Your task to perform on an android device: Search for the best rated TV on Target Image 0: 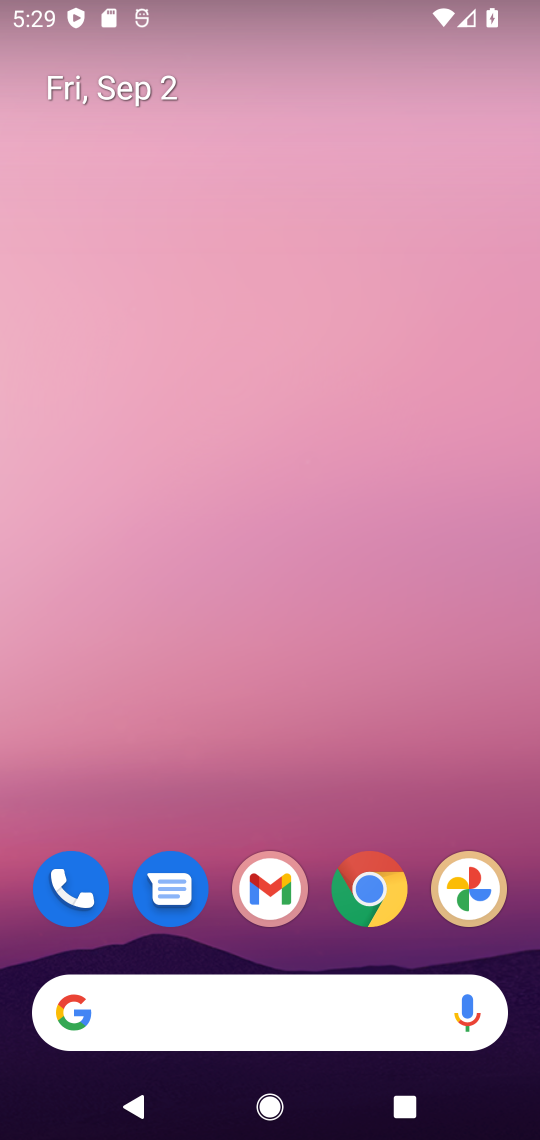
Step 0: click (339, 998)
Your task to perform on an android device: Search for the best rated TV on Target Image 1: 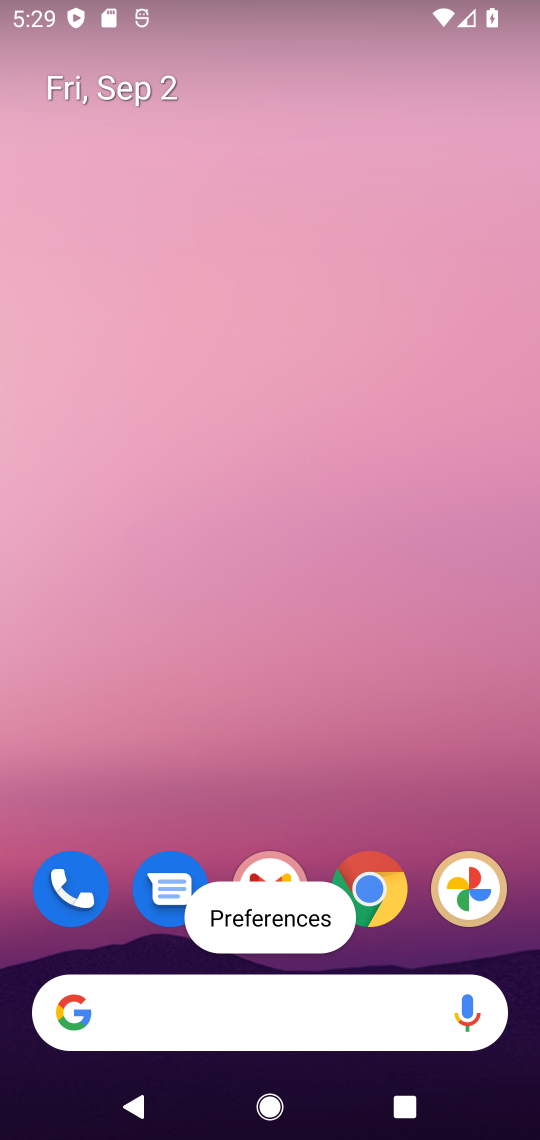
Step 1: click (242, 1003)
Your task to perform on an android device: Search for the best rated TV on Target Image 2: 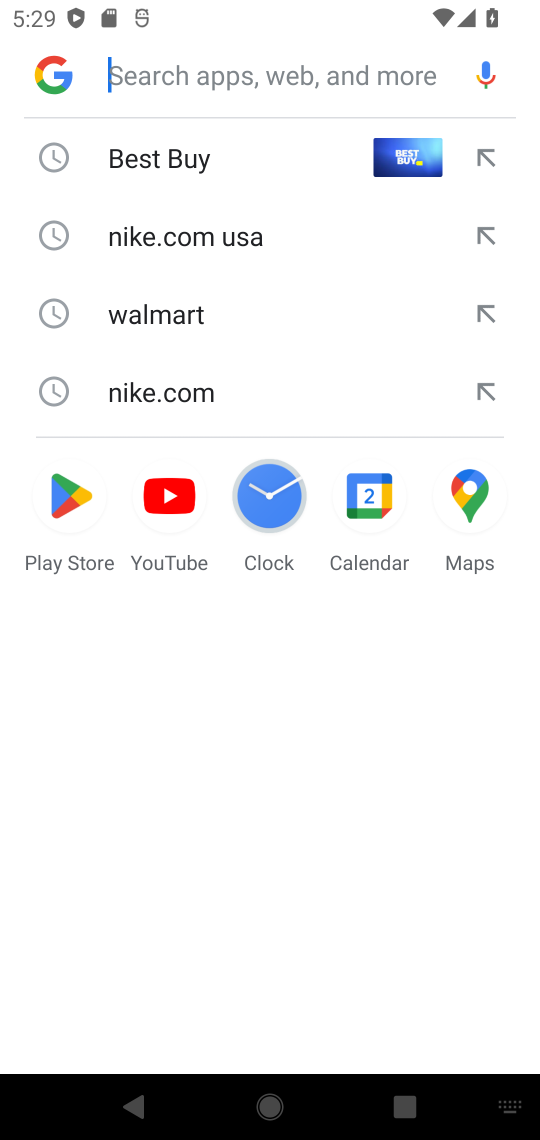
Step 2: type "Target"
Your task to perform on an android device: Search for the best rated TV on Target Image 3: 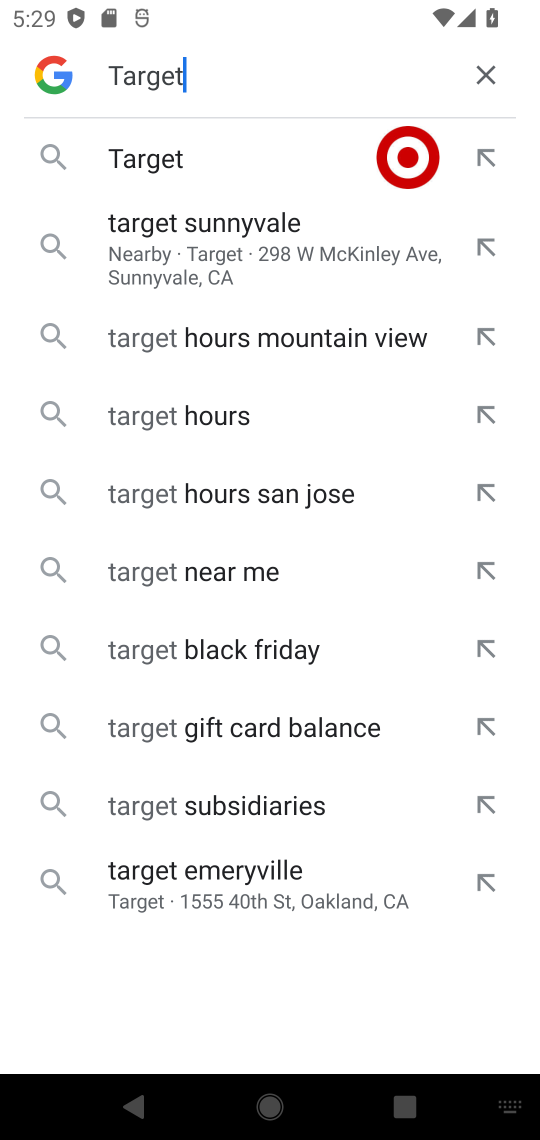
Step 3: click (189, 149)
Your task to perform on an android device: Search for the best rated TV on Target Image 4: 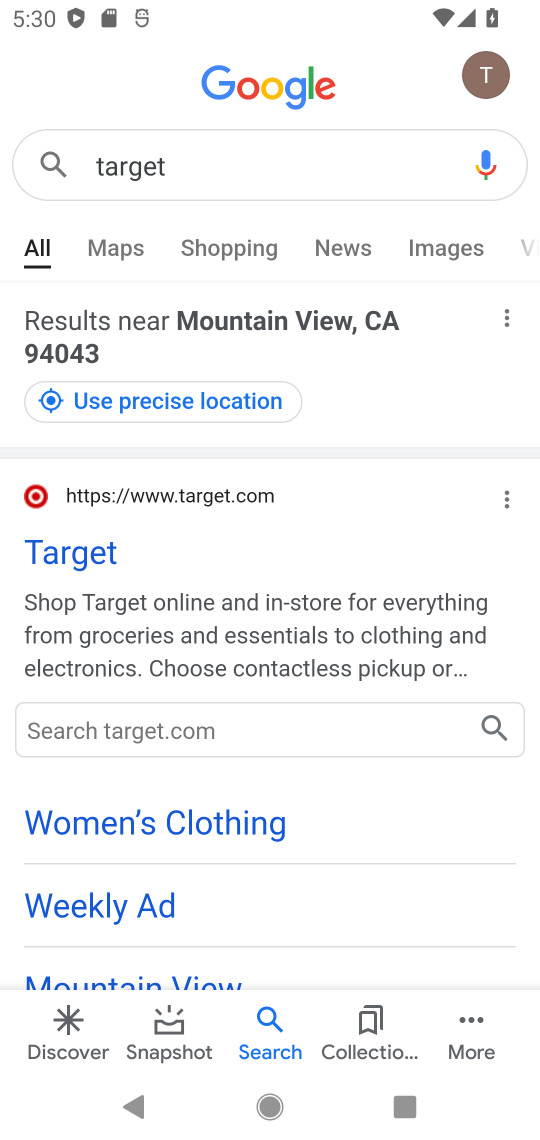
Step 4: click (91, 556)
Your task to perform on an android device: Search for the best rated TV on Target Image 5: 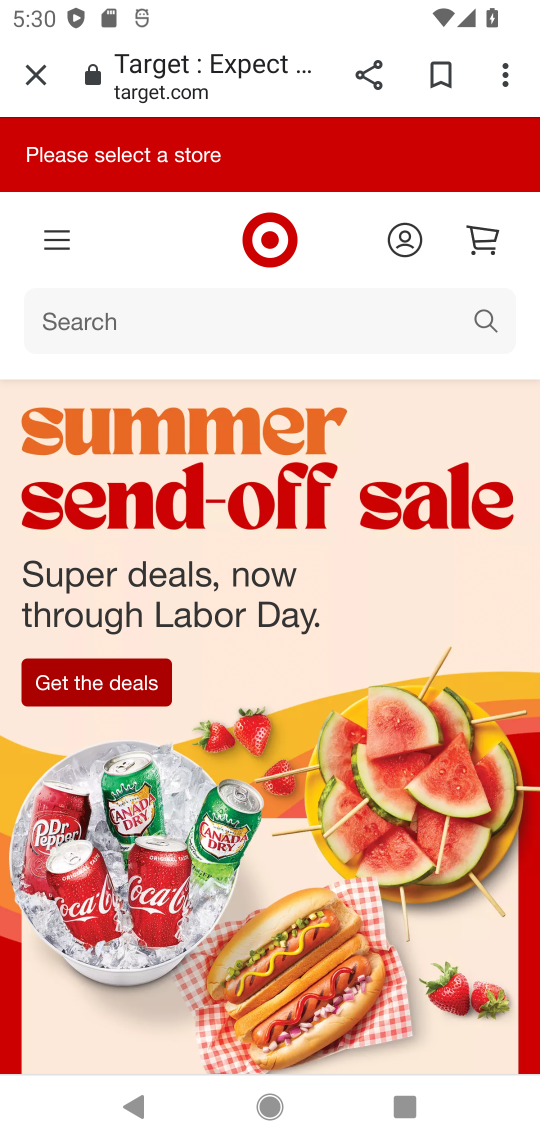
Step 5: click (329, 335)
Your task to perform on an android device: Search for the best rated TV on Target Image 6: 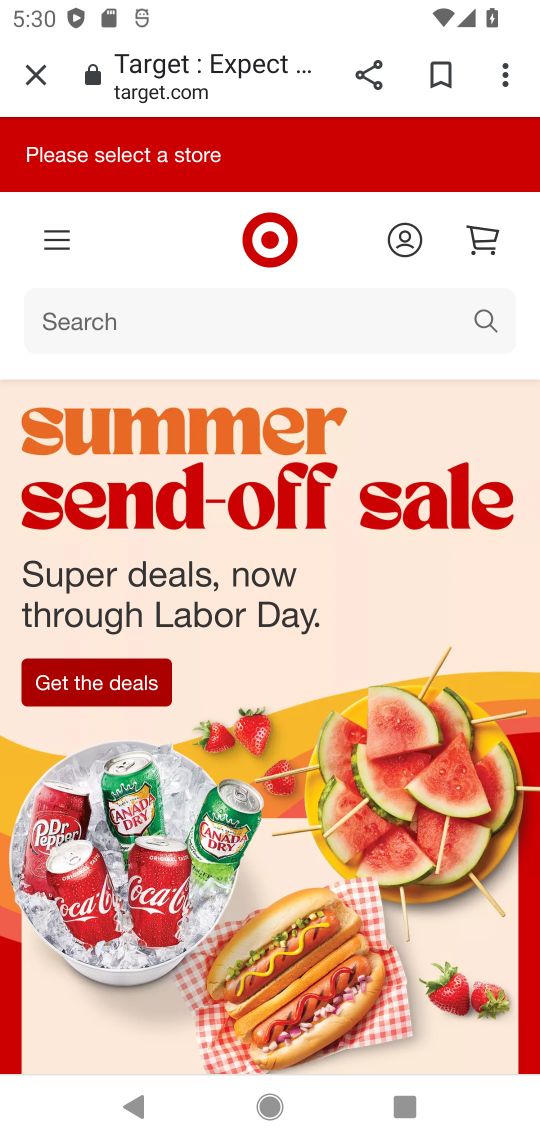
Step 6: click (92, 319)
Your task to perform on an android device: Search for the best rated TV on Target Image 7: 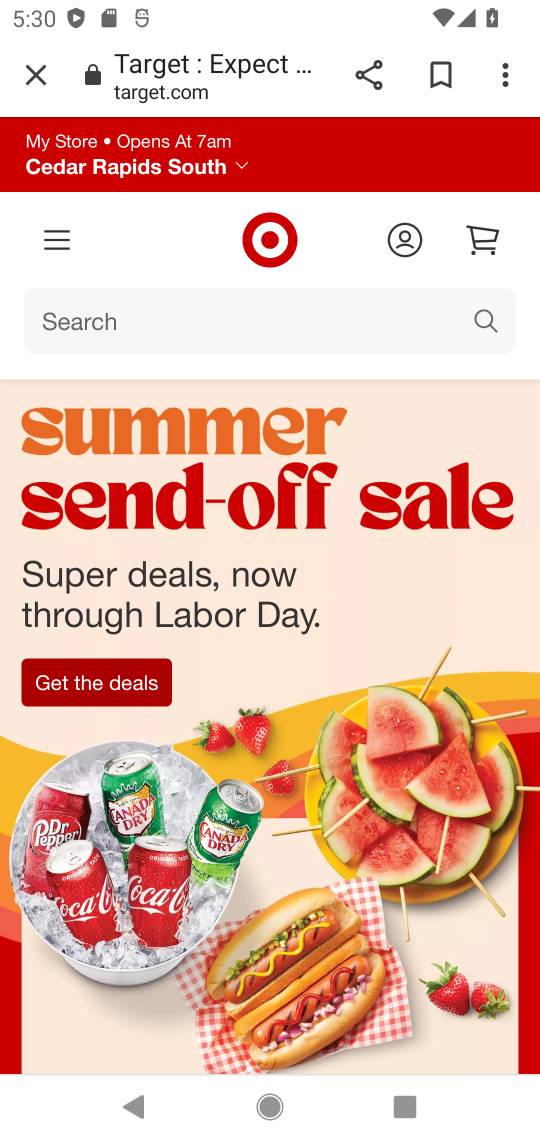
Step 7: click (162, 320)
Your task to perform on an android device: Search for the best rated TV on Target Image 8: 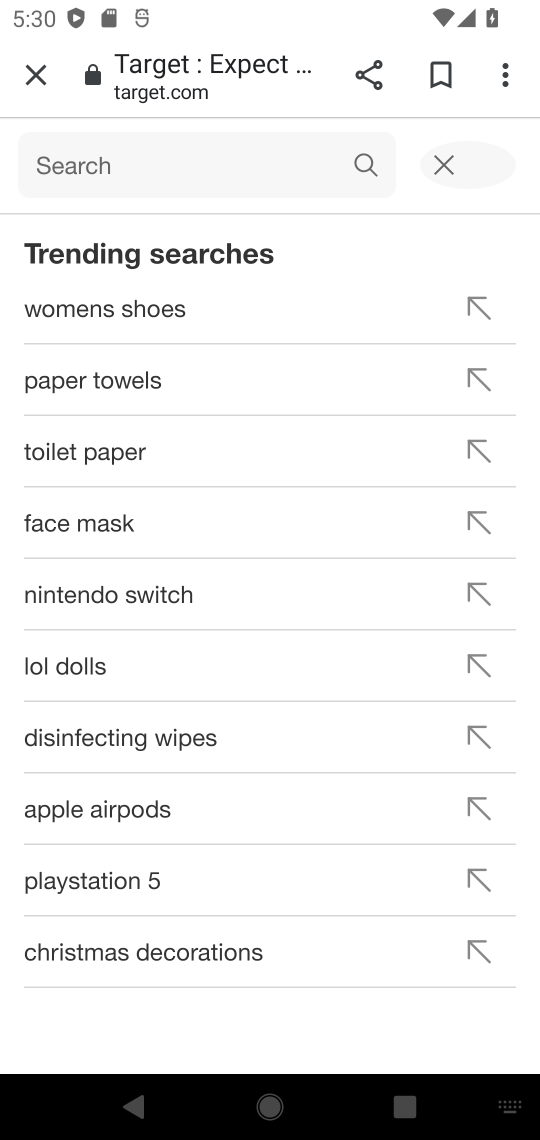
Step 8: click (182, 176)
Your task to perform on an android device: Search for the best rated TV on Target Image 9: 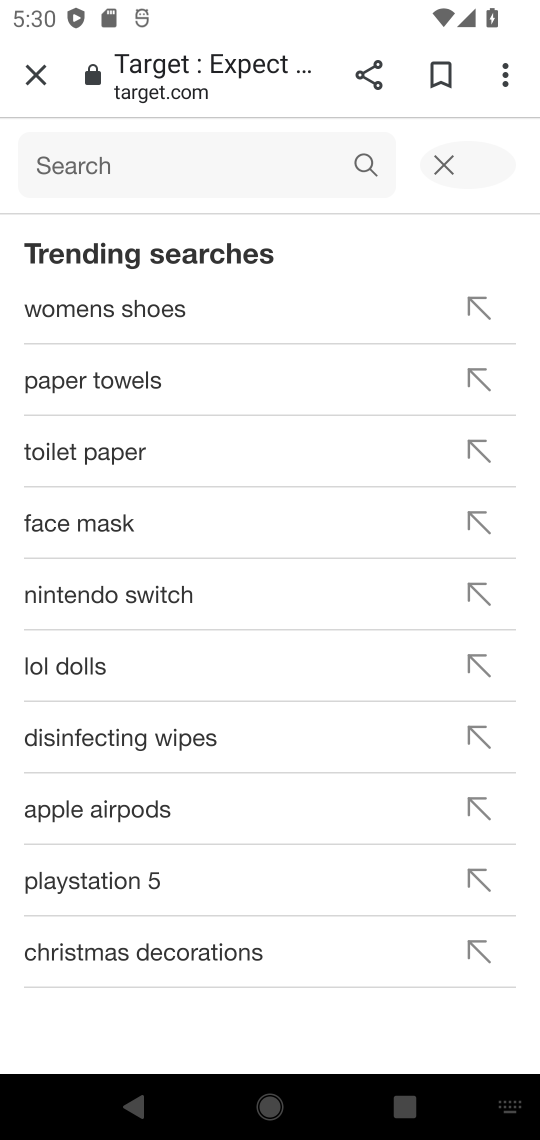
Step 9: type "best rated TV"
Your task to perform on an android device: Search for the best rated TV on Target Image 10: 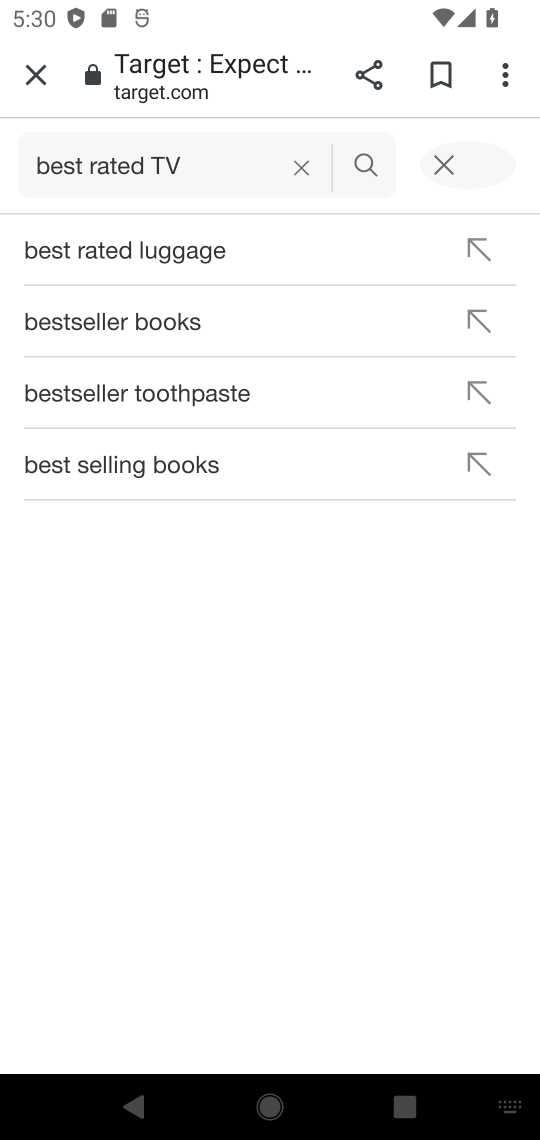
Step 10: click (382, 184)
Your task to perform on an android device: Search for the best rated TV on Target Image 11: 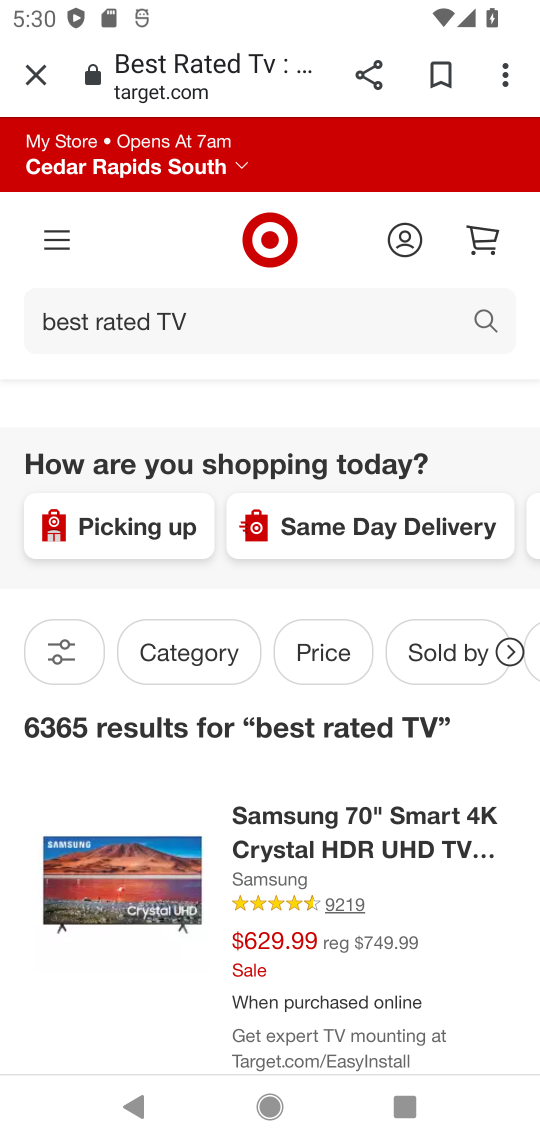
Step 11: task complete